Your task to perform on an android device: Open CNN.com Image 0: 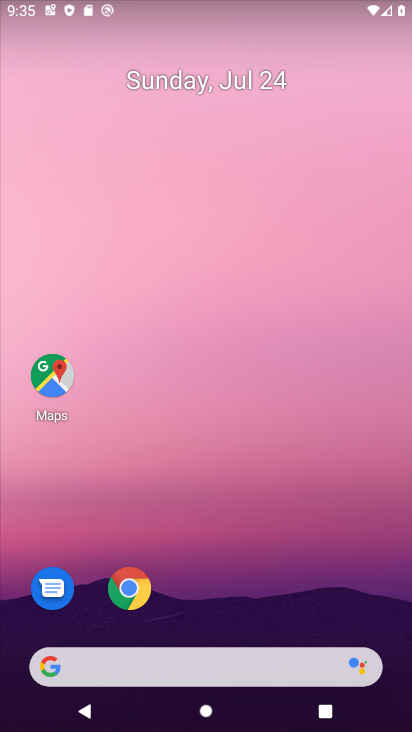
Step 0: click (134, 598)
Your task to perform on an android device: Open CNN.com Image 1: 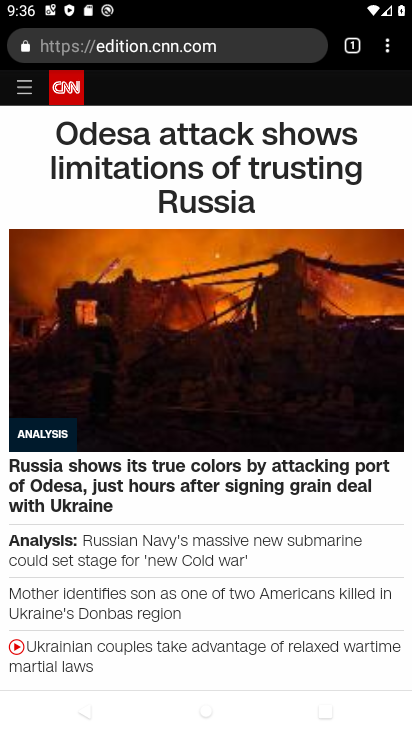
Step 1: task complete